Your task to perform on an android device: Open calendar and show me the first week of next month Image 0: 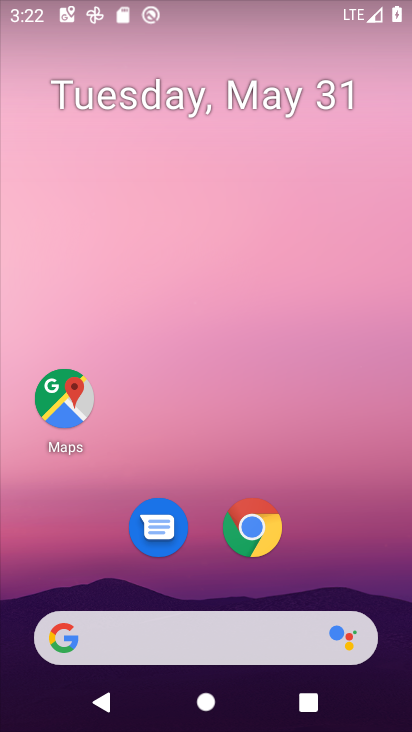
Step 0: drag from (388, 549) to (403, 131)
Your task to perform on an android device: Open calendar and show me the first week of next month Image 1: 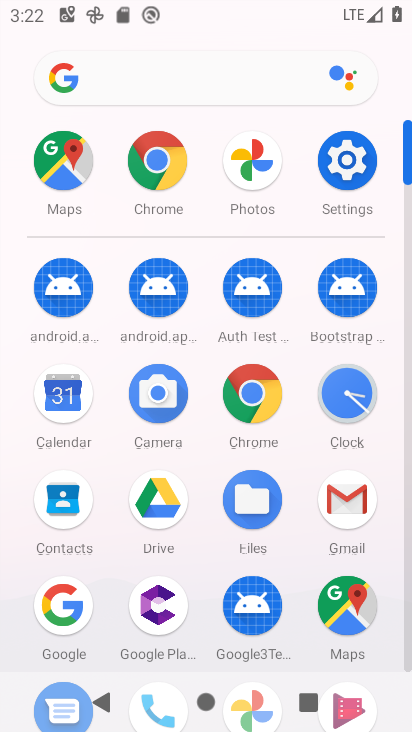
Step 1: click (59, 407)
Your task to perform on an android device: Open calendar and show me the first week of next month Image 2: 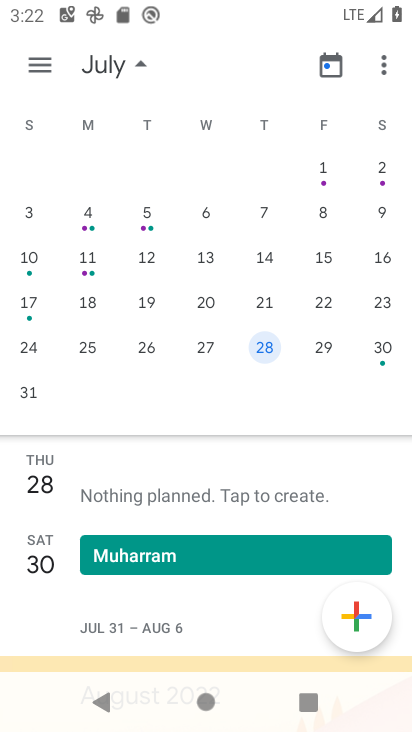
Step 2: click (318, 177)
Your task to perform on an android device: Open calendar and show me the first week of next month Image 3: 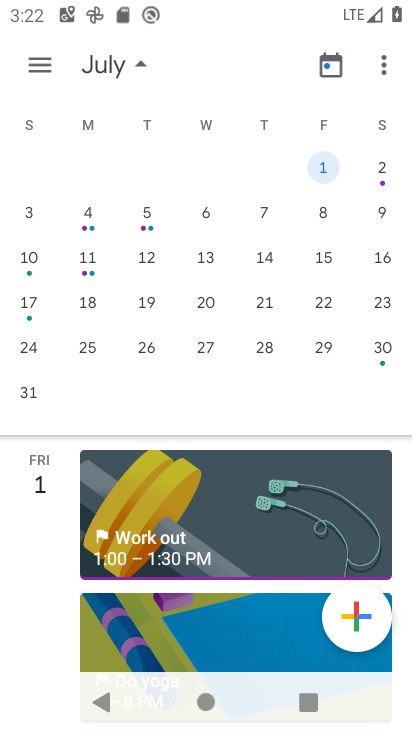
Step 3: task complete